Your task to perform on an android device: see tabs open on other devices in the chrome app Image 0: 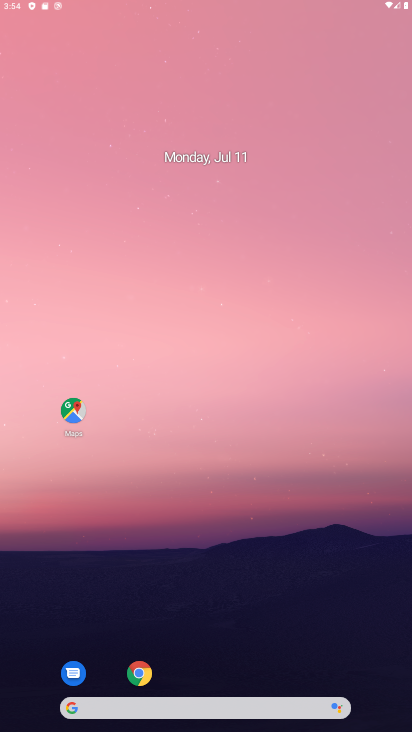
Step 0: drag from (331, 641) to (305, 65)
Your task to perform on an android device: see tabs open on other devices in the chrome app Image 1: 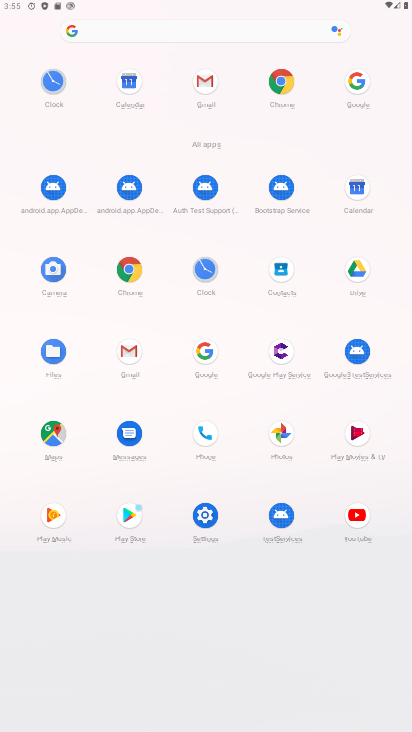
Step 1: click (130, 268)
Your task to perform on an android device: see tabs open on other devices in the chrome app Image 2: 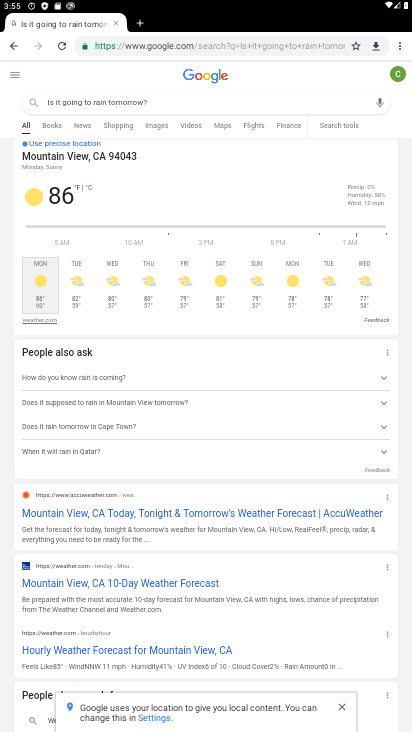
Step 2: task complete